Your task to perform on an android device: visit the assistant section in the google photos Image 0: 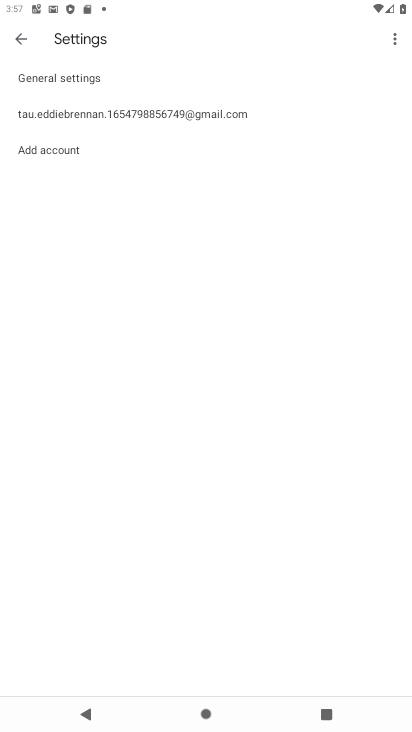
Step 0: press home button
Your task to perform on an android device: visit the assistant section in the google photos Image 1: 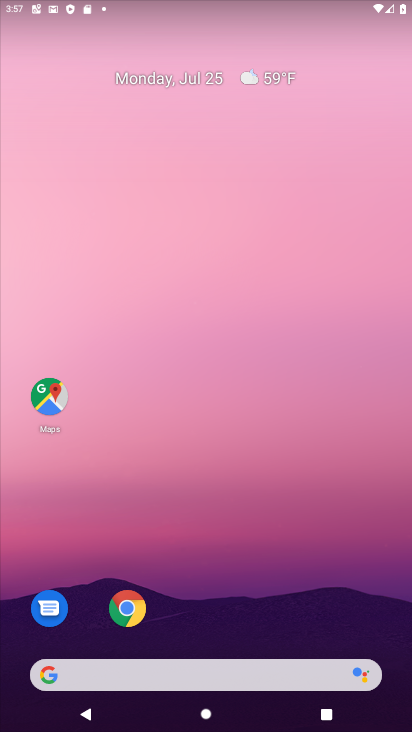
Step 1: drag from (222, 646) to (250, 123)
Your task to perform on an android device: visit the assistant section in the google photos Image 2: 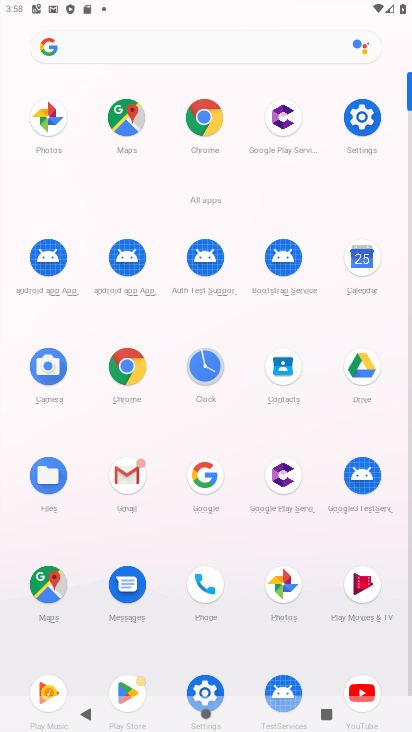
Step 2: click (280, 583)
Your task to perform on an android device: visit the assistant section in the google photos Image 3: 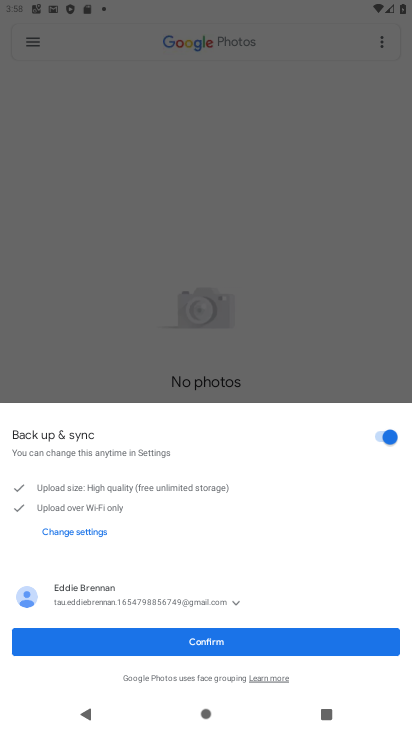
Step 3: click (229, 656)
Your task to perform on an android device: visit the assistant section in the google photos Image 4: 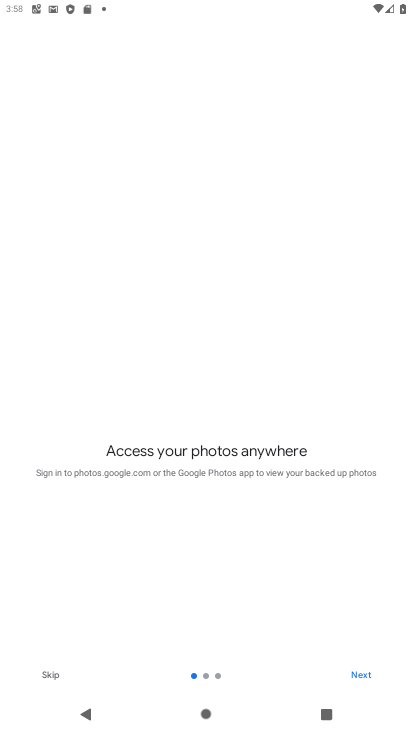
Step 4: click (53, 671)
Your task to perform on an android device: visit the assistant section in the google photos Image 5: 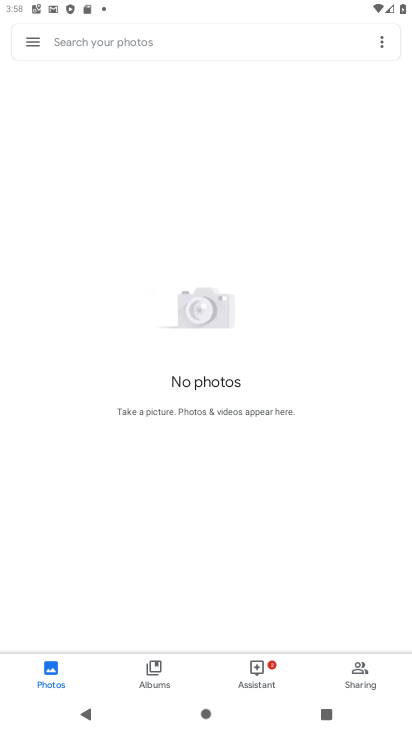
Step 5: click (257, 669)
Your task to perform on an android device: visit the assistant section in the google photos Image 6: 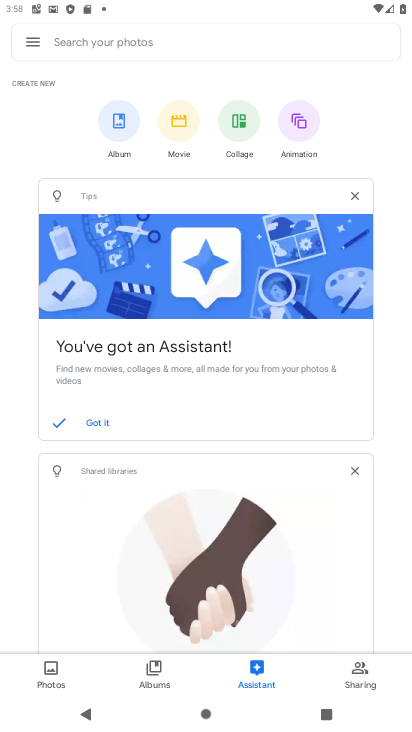
Step 6: task complete